Your task to perform on an android device: Go to battery settings Image 0: 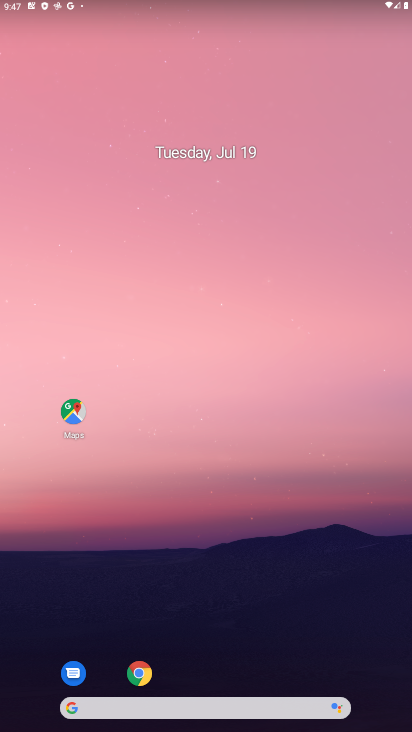
Step 0: drag from (230, 667) to (193, 272)
Your task to perform on an android device: Go to battery settings Image 1: 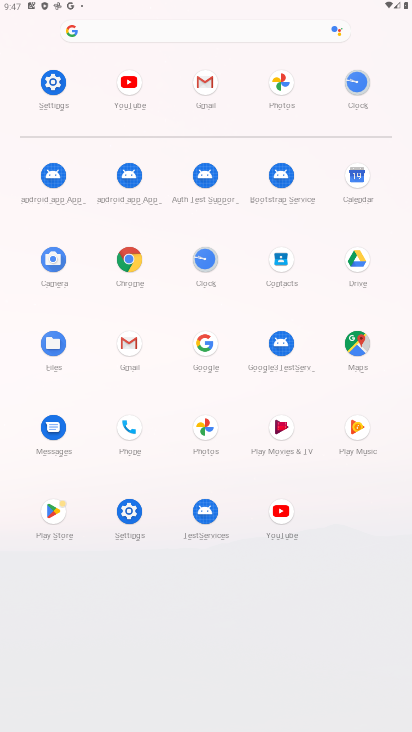
Step 1: click (58, 99)
Your task to perform on an android device: Go to battery settings Image 2: 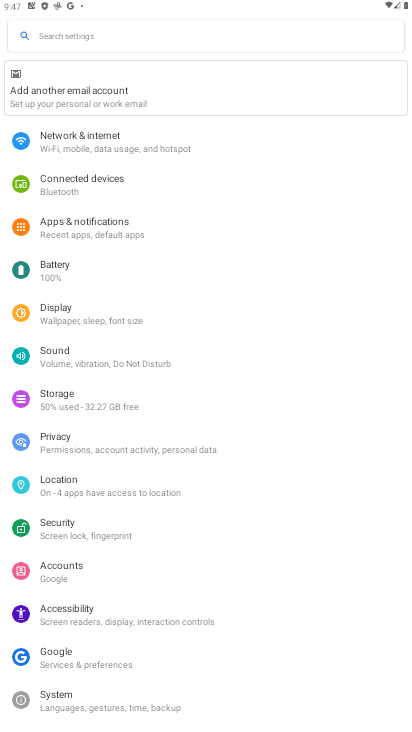
Step 2: click (72, 261)
Your task to perform on an android device: Go to battery settings Image 3: 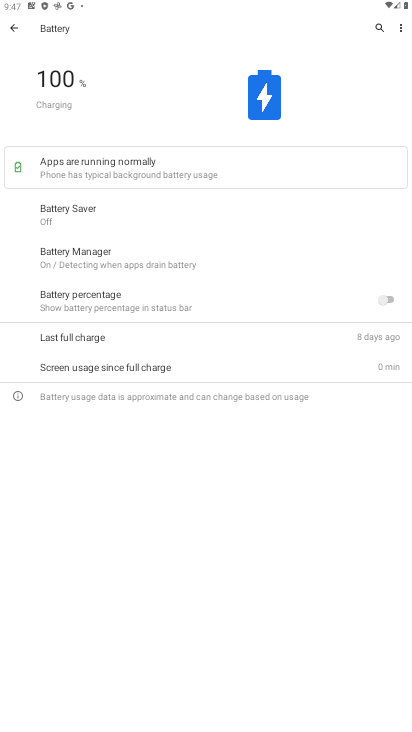
Step 3: task complete